Your task to perform on an android device: change alarm snooze length Image 0: 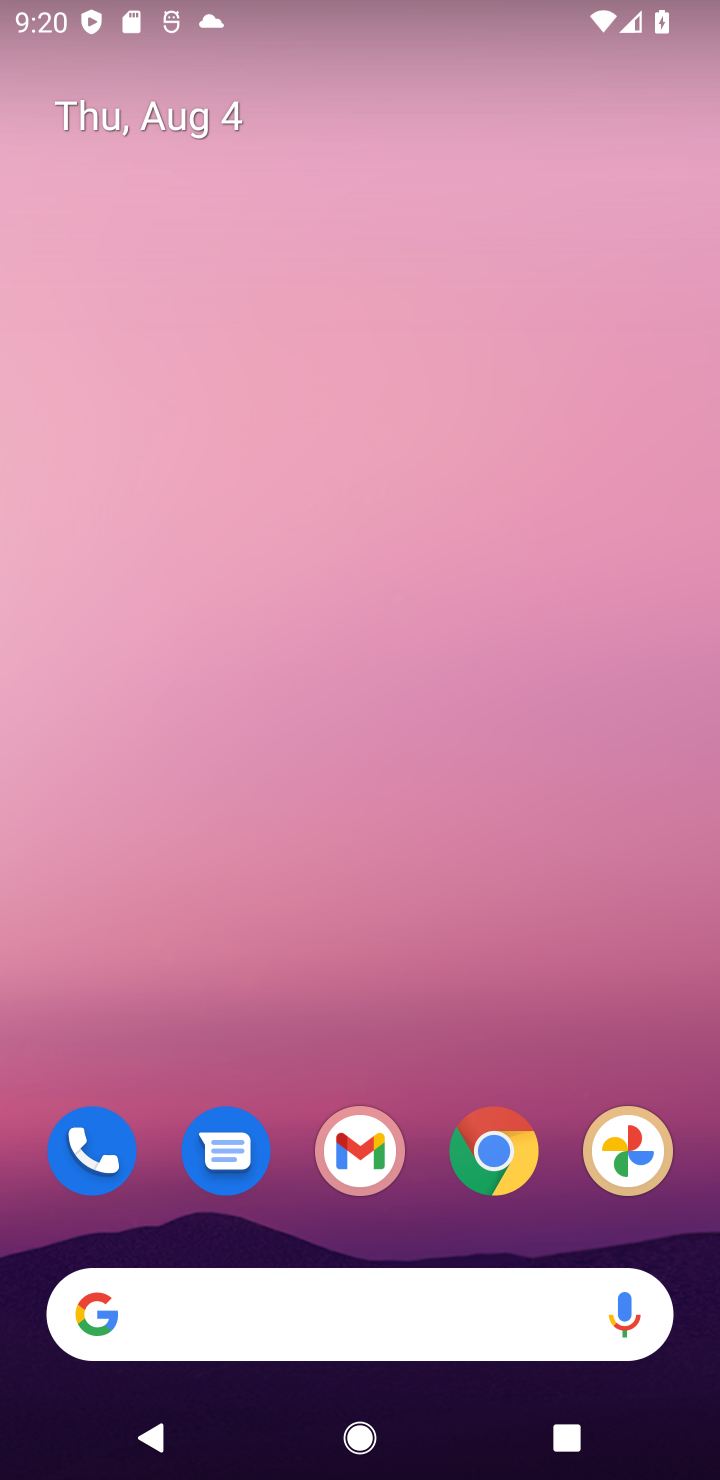
Step 0: drag from (428, 1105) to (473, 277)
Your task to perform on an android device: change alarm snooze length Image 1: 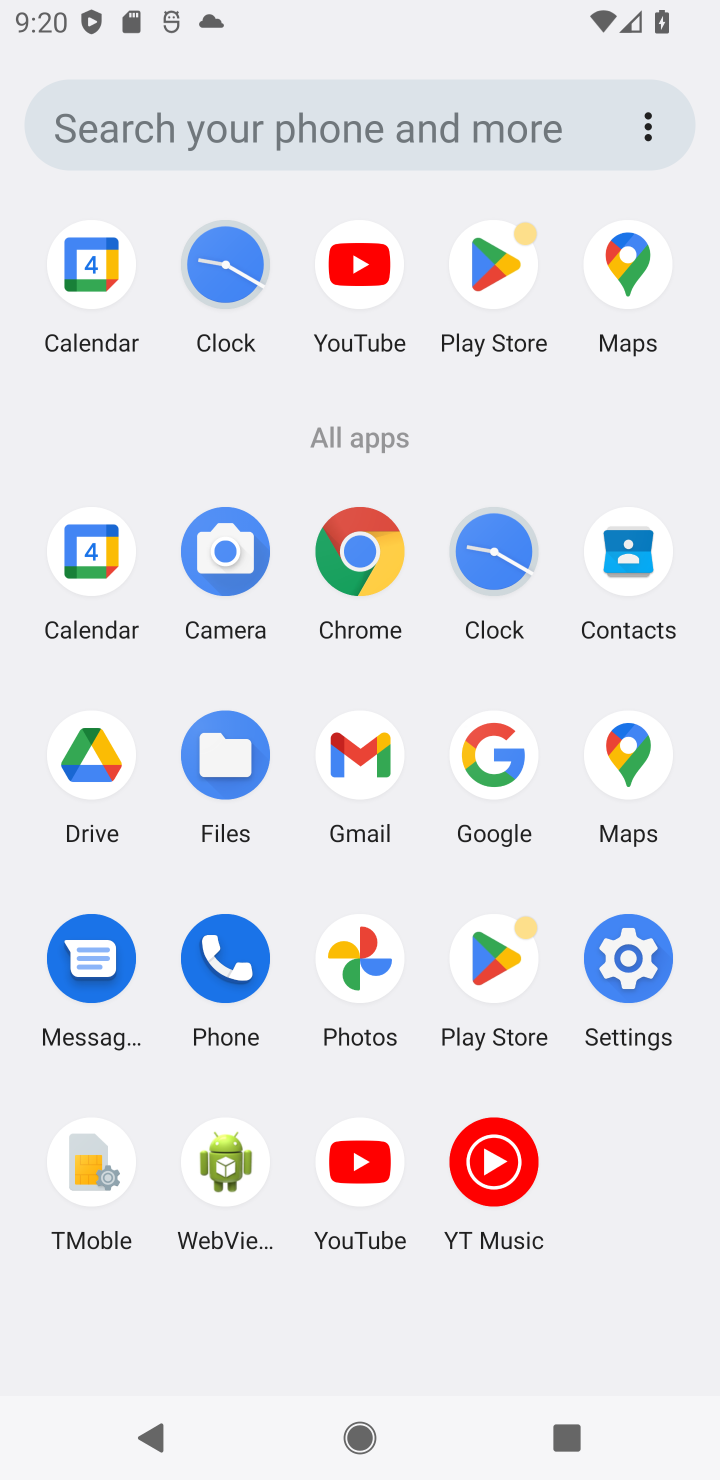
Step 1: click (239, 295)
Your task to perform on an android device: change alarm snooze length Image 2: 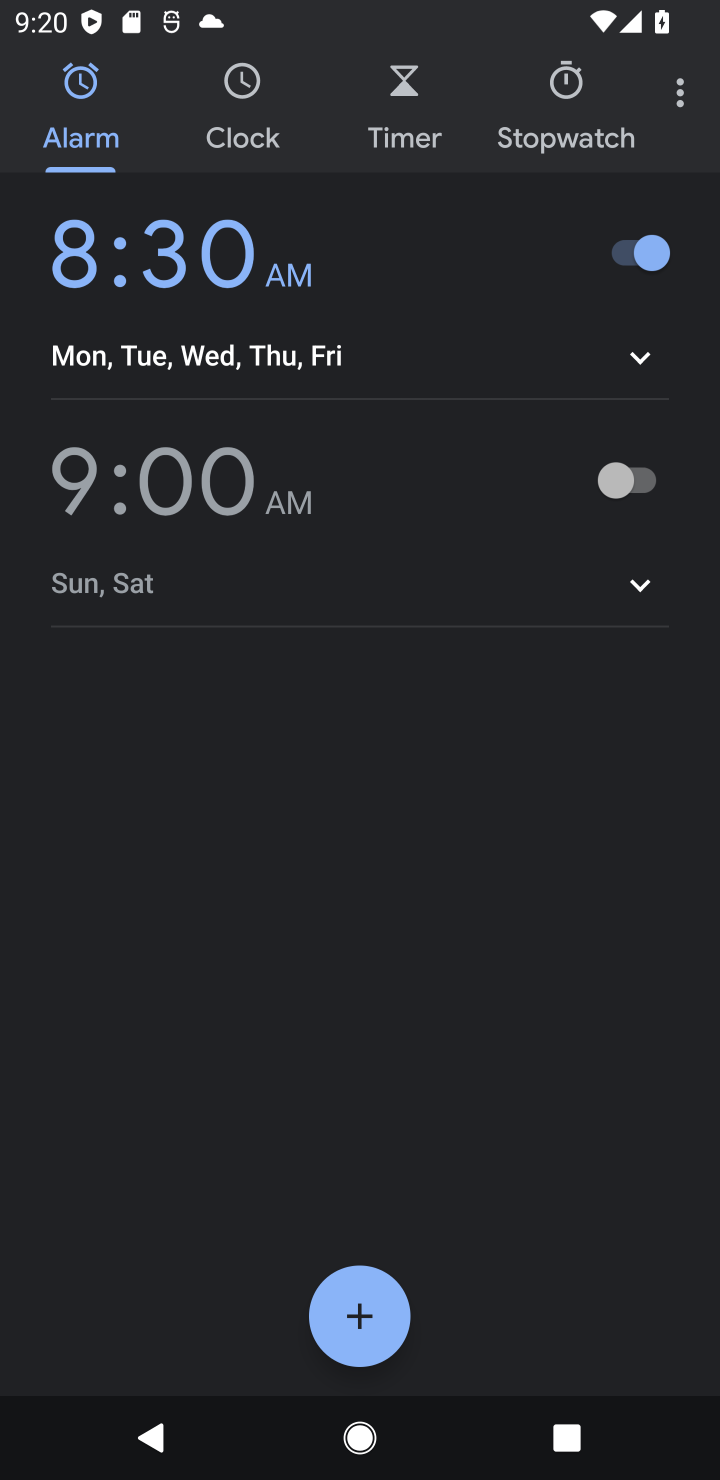
Step 2: click (681, 81)
Your task to perform on an android device: change alarm snooze length Image 3: 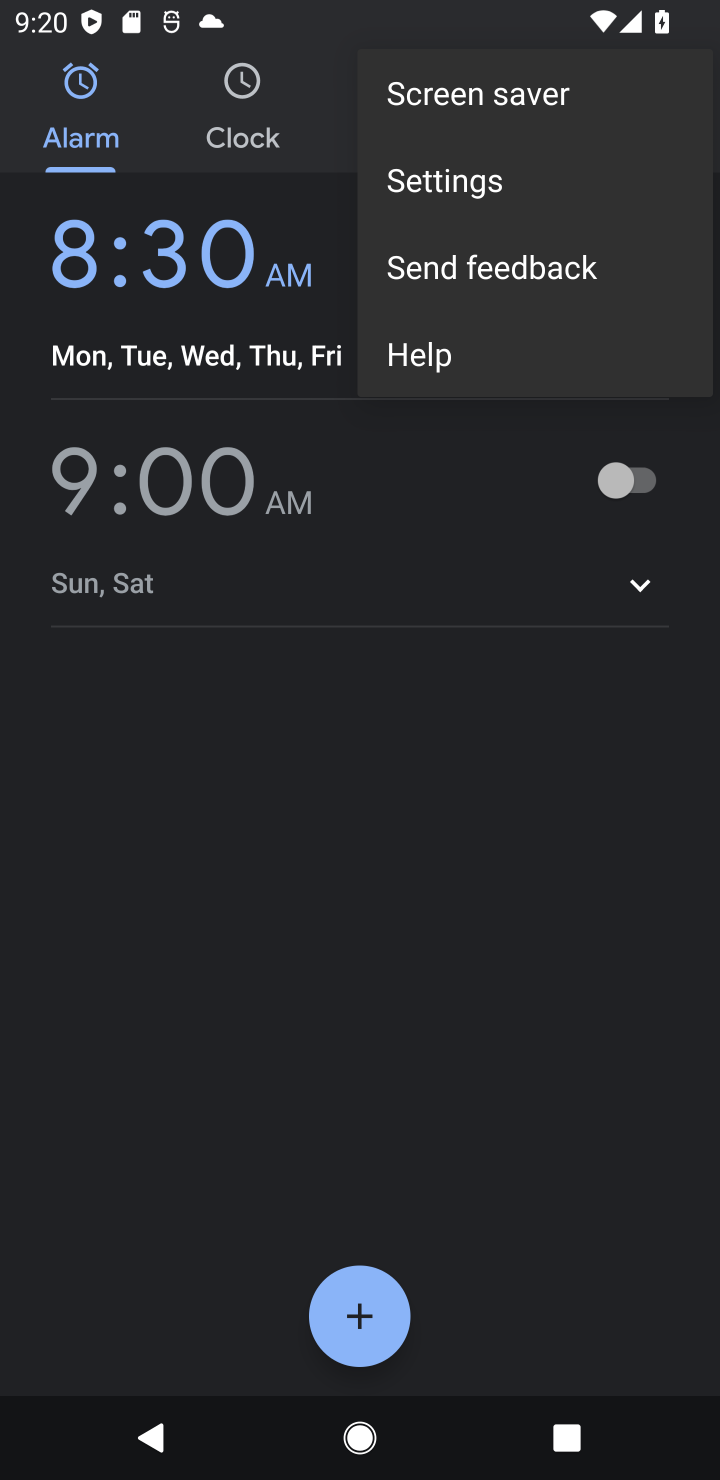
Step 3: click (509, 194)
Your task to perform on an android device: change alarm snooze length Image 4: 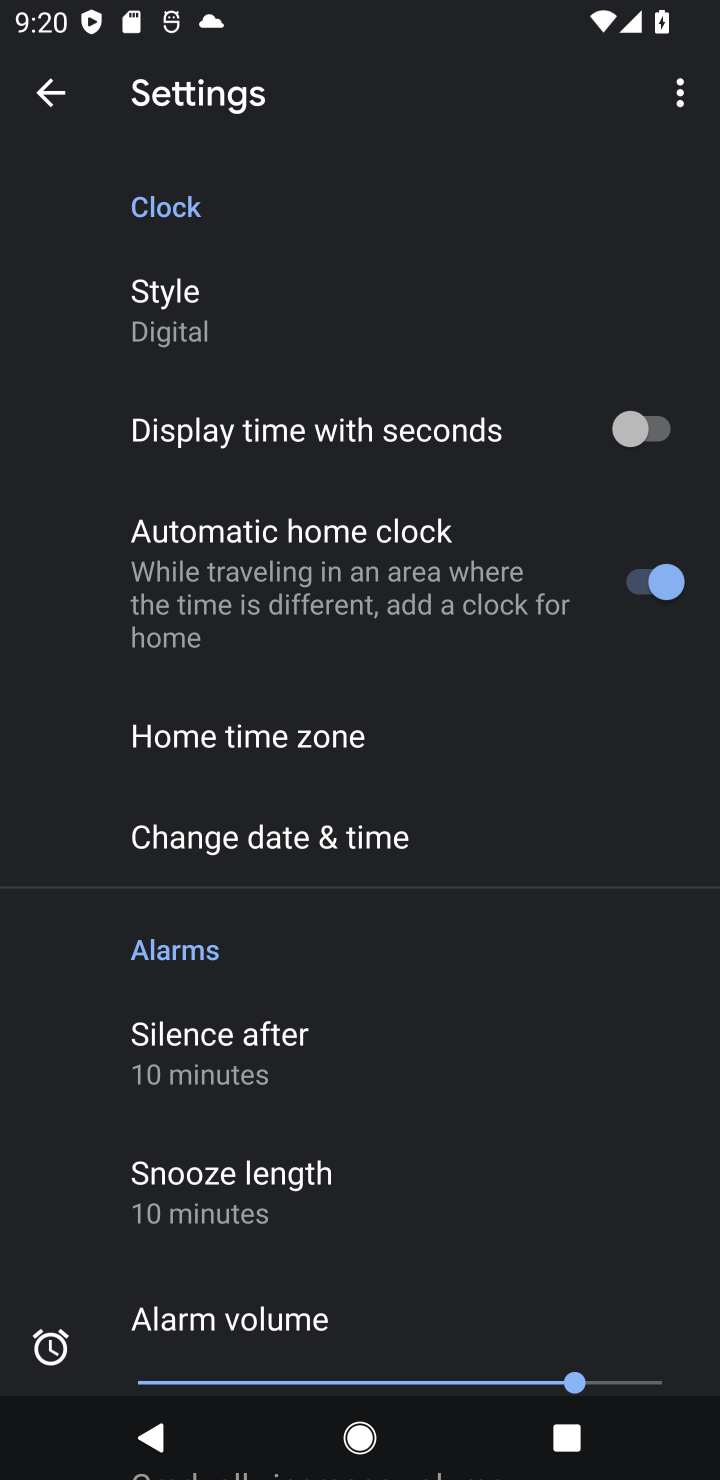
Step 4: click (366, 1168)
Your task to perform on an android device: change alarm snooze length Image 5: 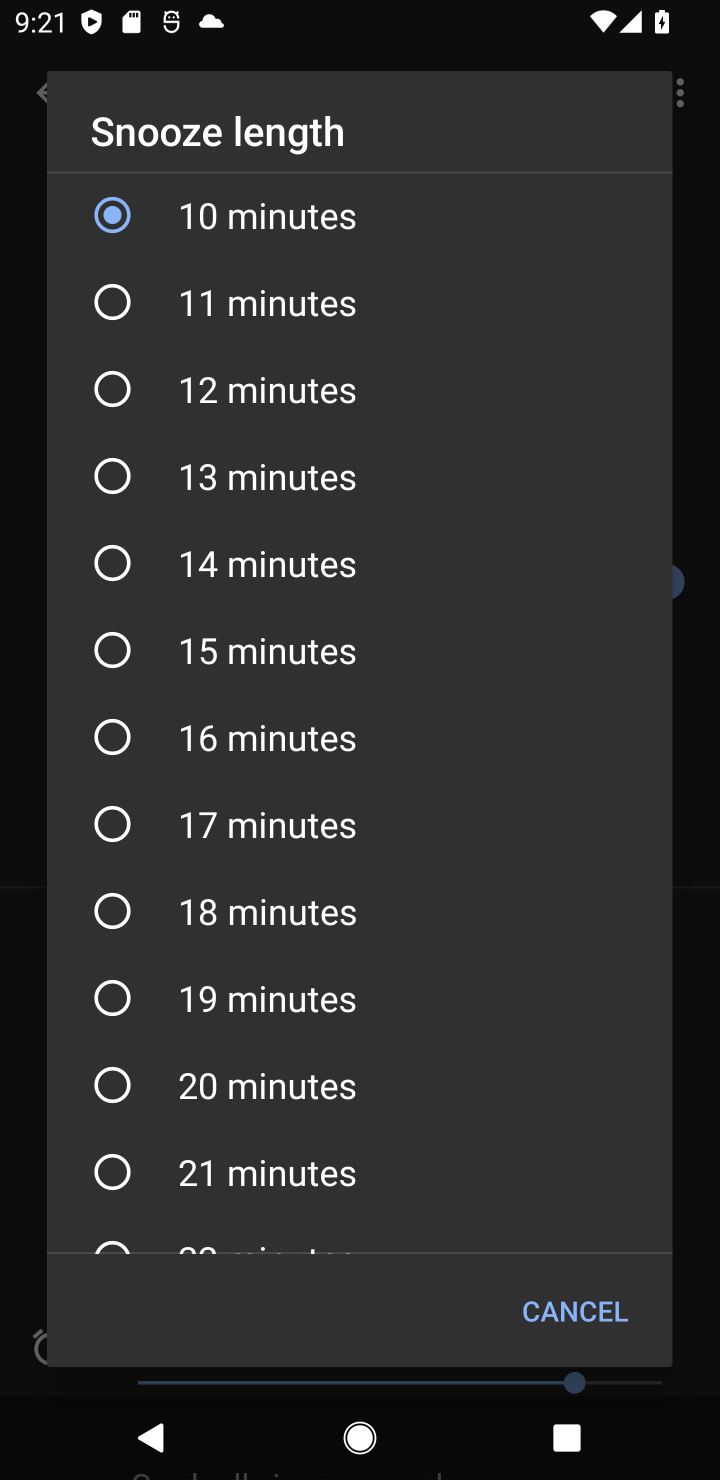
Step 5: click (120, 1090)
Your task to perform on an android device: change alarm snooze length Image 6: 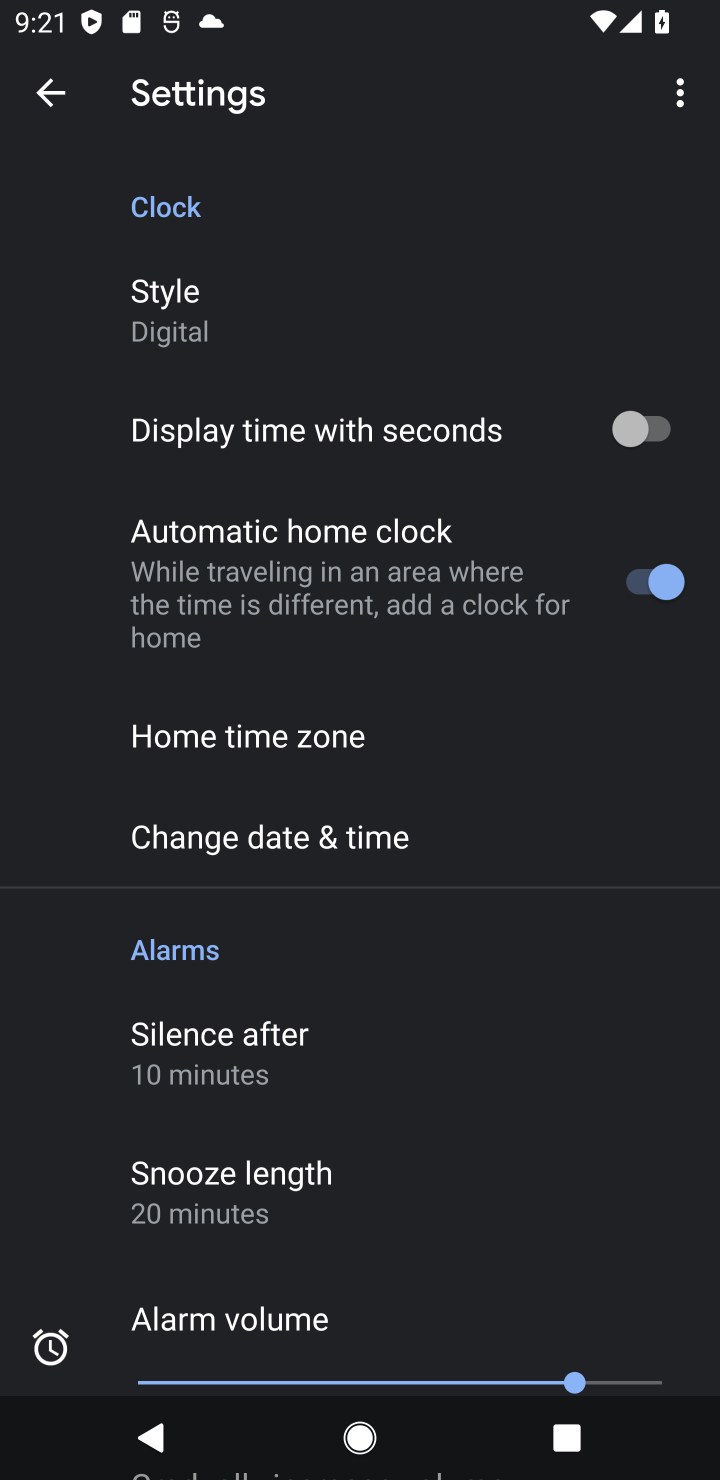
Step 6: task complete